Your task to perform on an android device: empty trash in the gmail app Image 0: 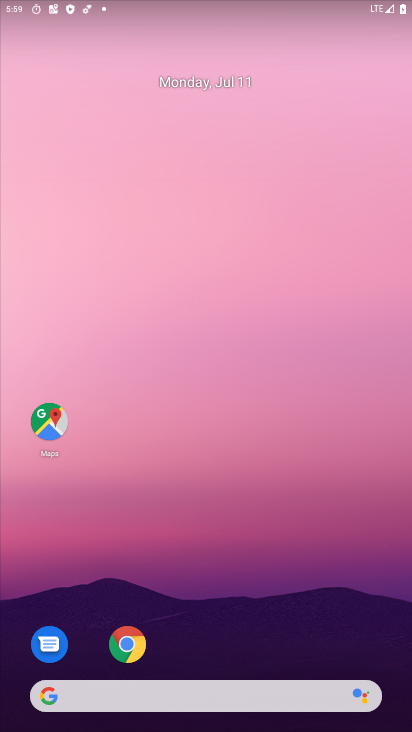
Step 0: drag from (307, 678) to (337, 0)
Your task to perform on an android device: empty trash in the gmail app Image 1: 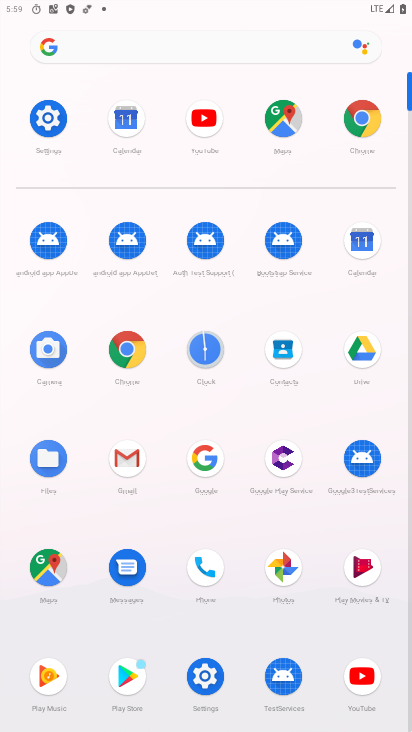
Step 1: click (125, 450)
Your task to perform on an android device: empty trash in the gmail app Image 2: 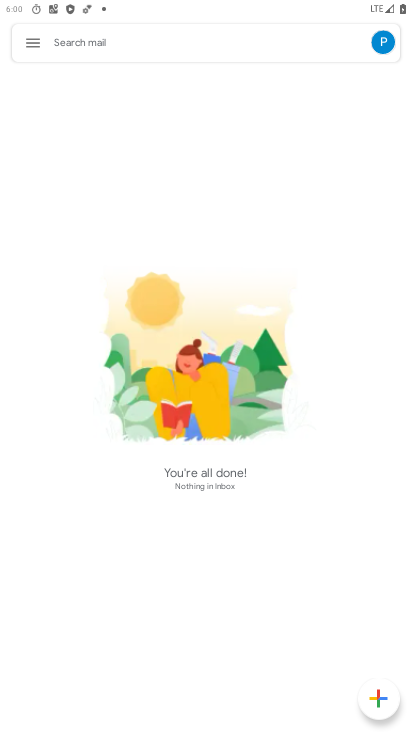
Step 2: click (37, 49)
Your task to perform on an android device: empty trash in the gmail app Image 3: 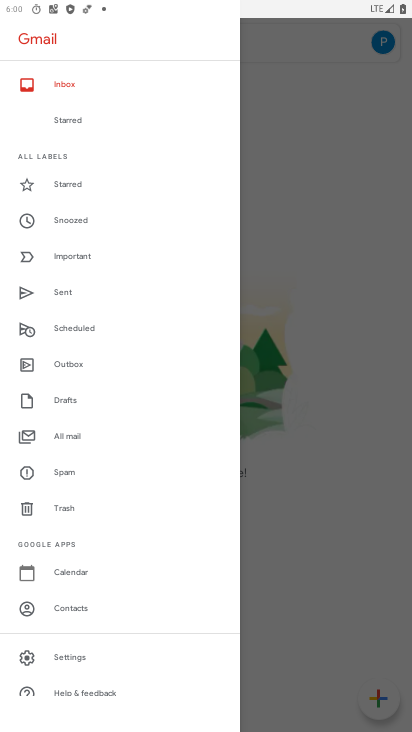
Step 3: click (63, 504)
Your task to perform on an android device: empty trash in the gmail app Image 4: 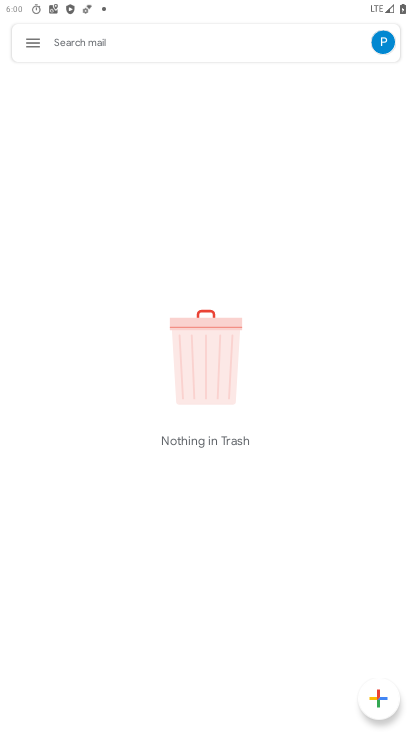
Step 4: task complete